Your task to perform on an android device: Go to Google Image 0: 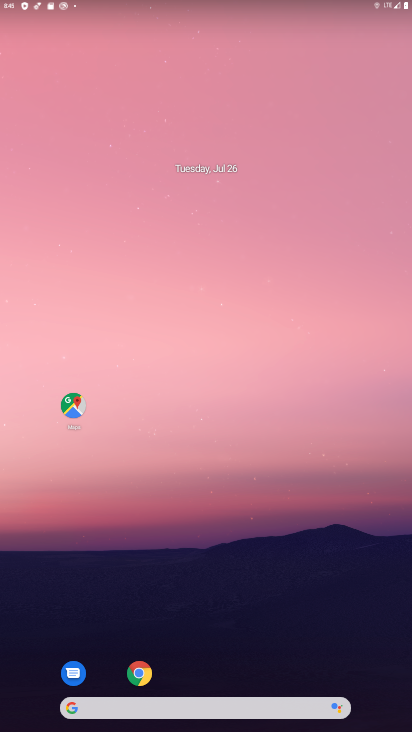
Step 0: drag from (180, 722) to (150, 211)
Your task to perform on an android device: Go to Google Image 1: 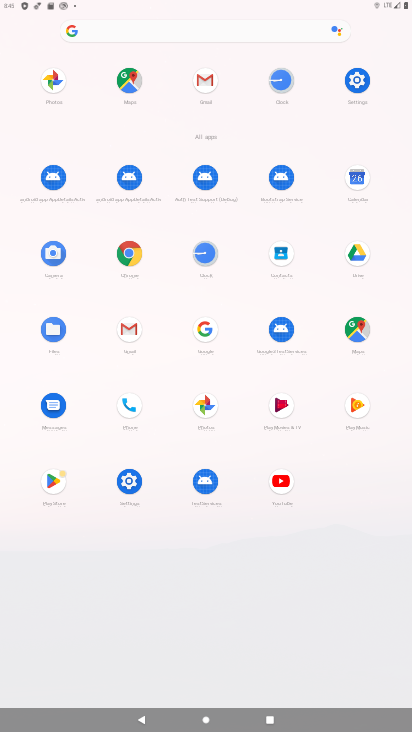
Step 1: click (120, 258)
Your task to perform on an android device: Go to Google Image 2: 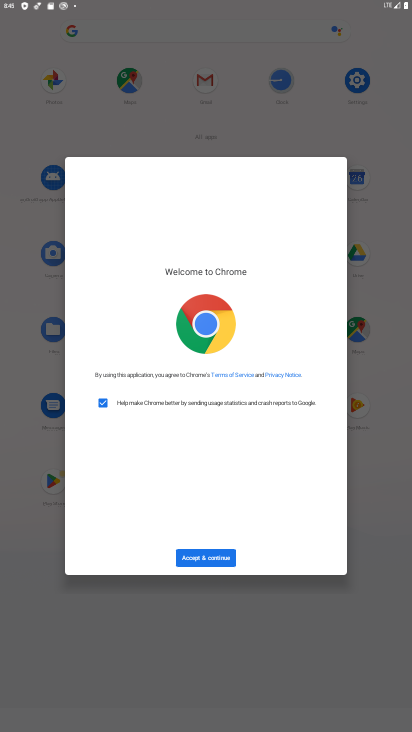
Step 2: click (198, 552)
Your task to perform on an android device: Go to Google Image 3: 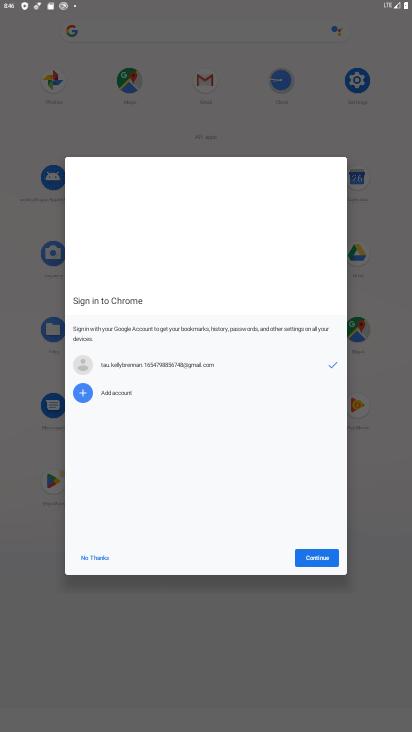
Step 3: click (80, 560)
Your task to perform on an android device: Go to Google Image 4: 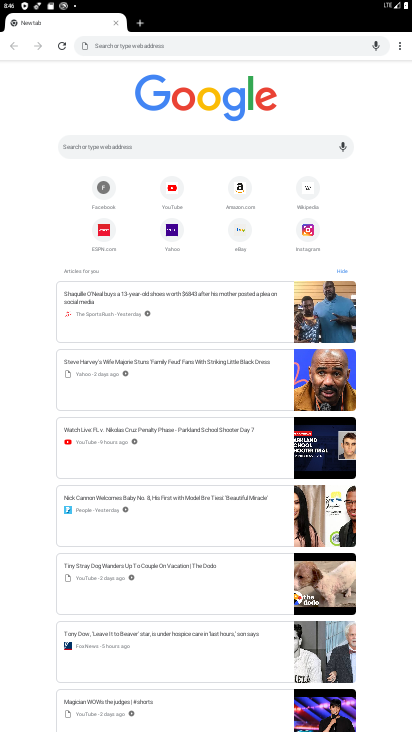
Step 4: task complete